Your task to perform on an android device: install app "Pluto TV - Live TV and Movies" Image 0: 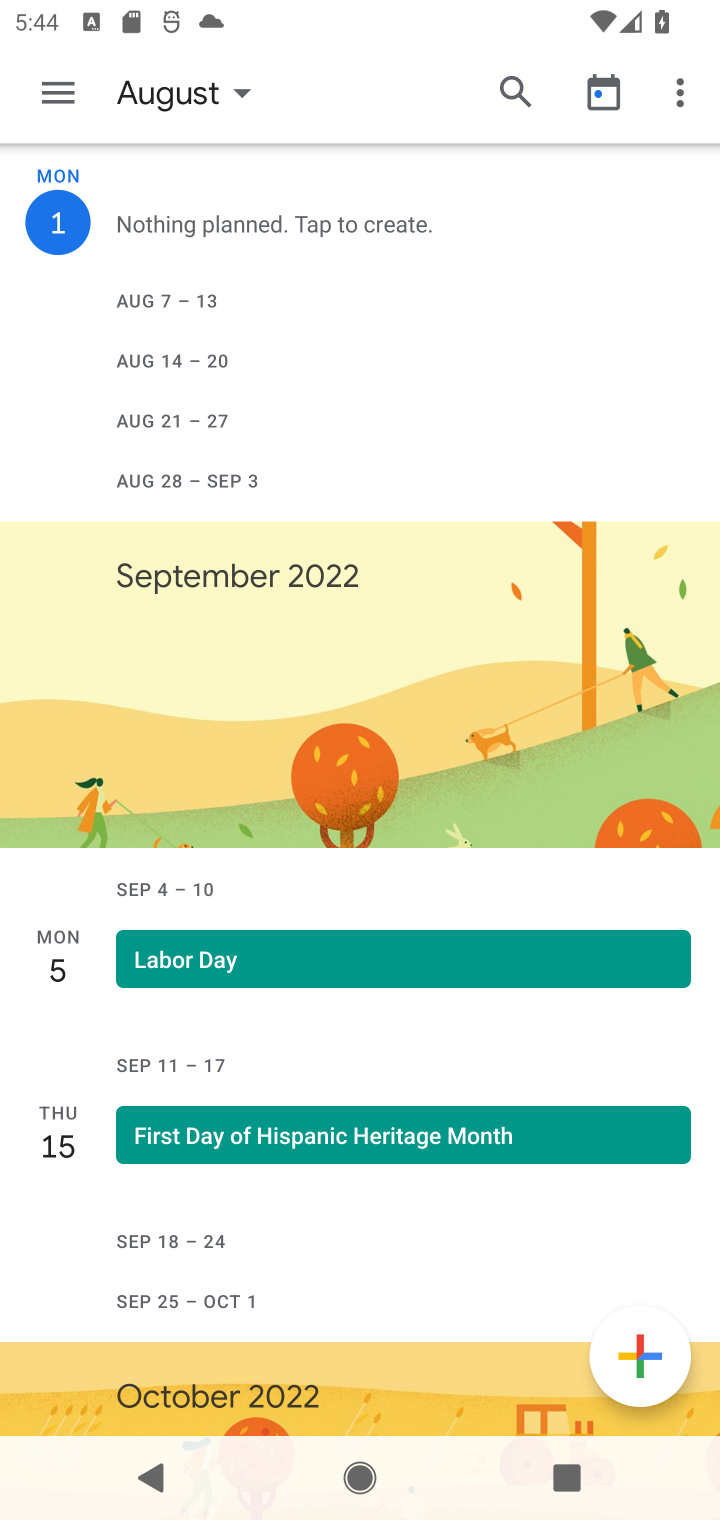
Step 0: press home button
Your task to perform on an android device: install app "Pluto TV - Live TV and Movies" Image 1: 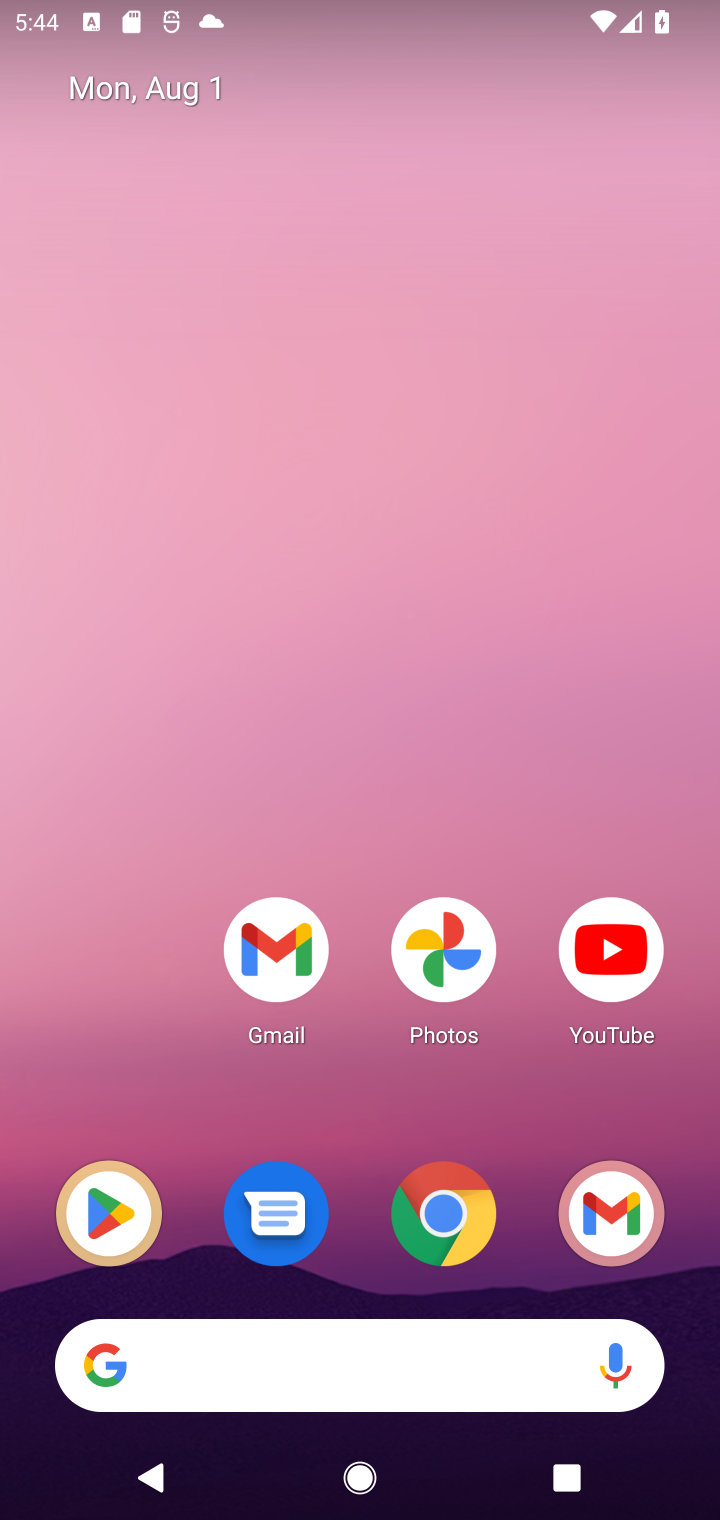
Step 1: drag from (550, 1079) to (425, 0)
Your task to perform on an android device: install app "Pluto TV - Live TV and Movies" Image 2: 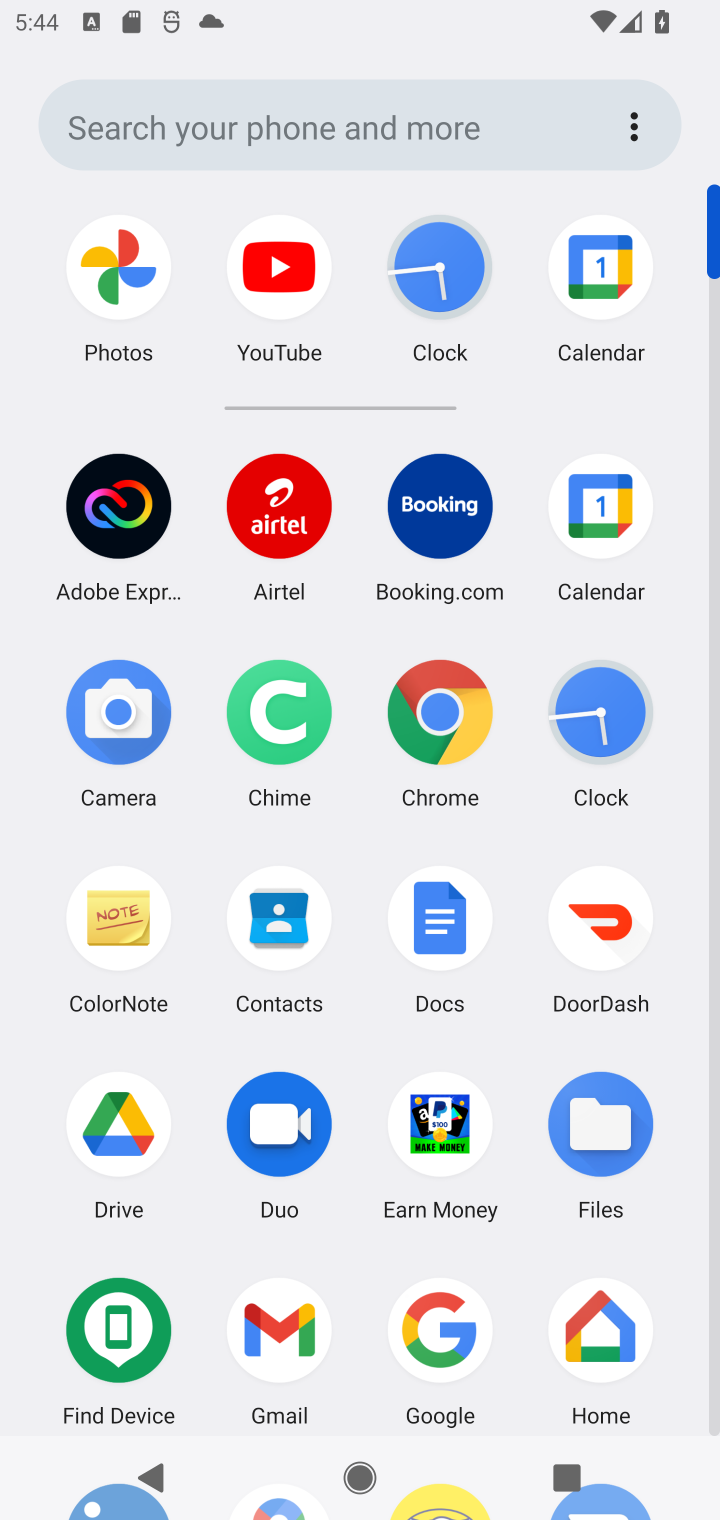
Step 2: drag from (368, 1107) to (331, 376)
Your task to perform on an android device: install app "Pluto TV - Live TV and Movies" Image 3: 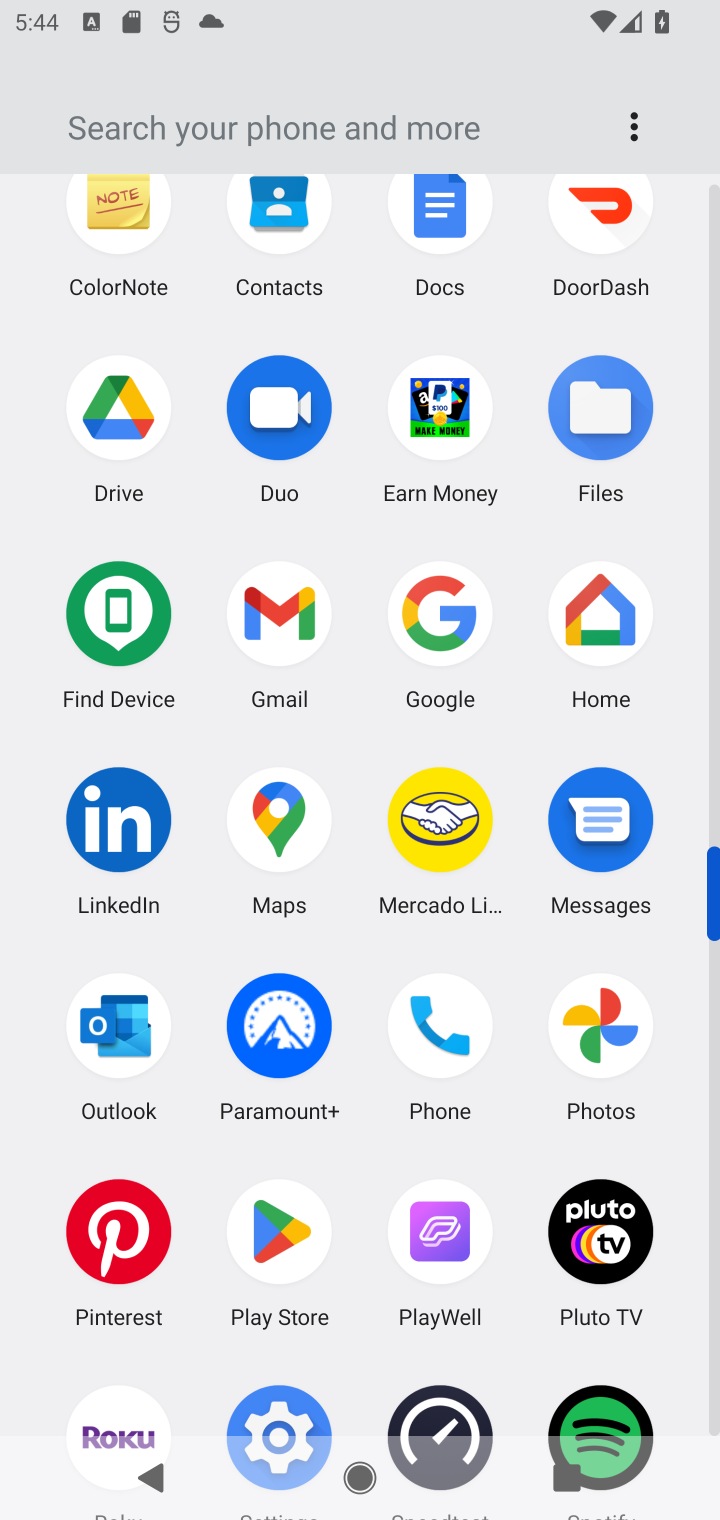
Step 3: click (281, 1225)
Your task to perform on an android device: install app "Pluto TV - Live TV and Movies" Image 4: 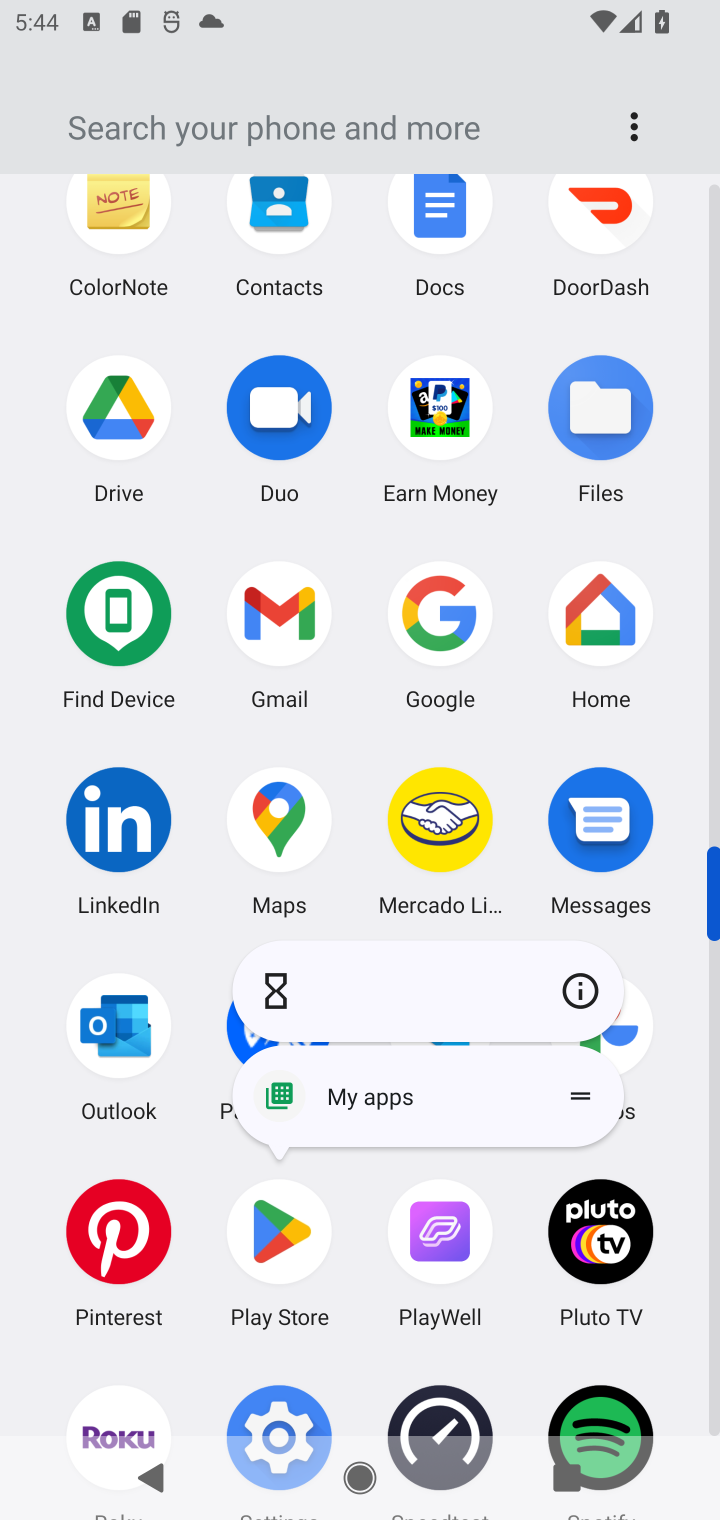
Step 4: click (264, 1251)
Your task to perform on an android device: install app "Pluto TV - Live TV and Movies" Image 5: 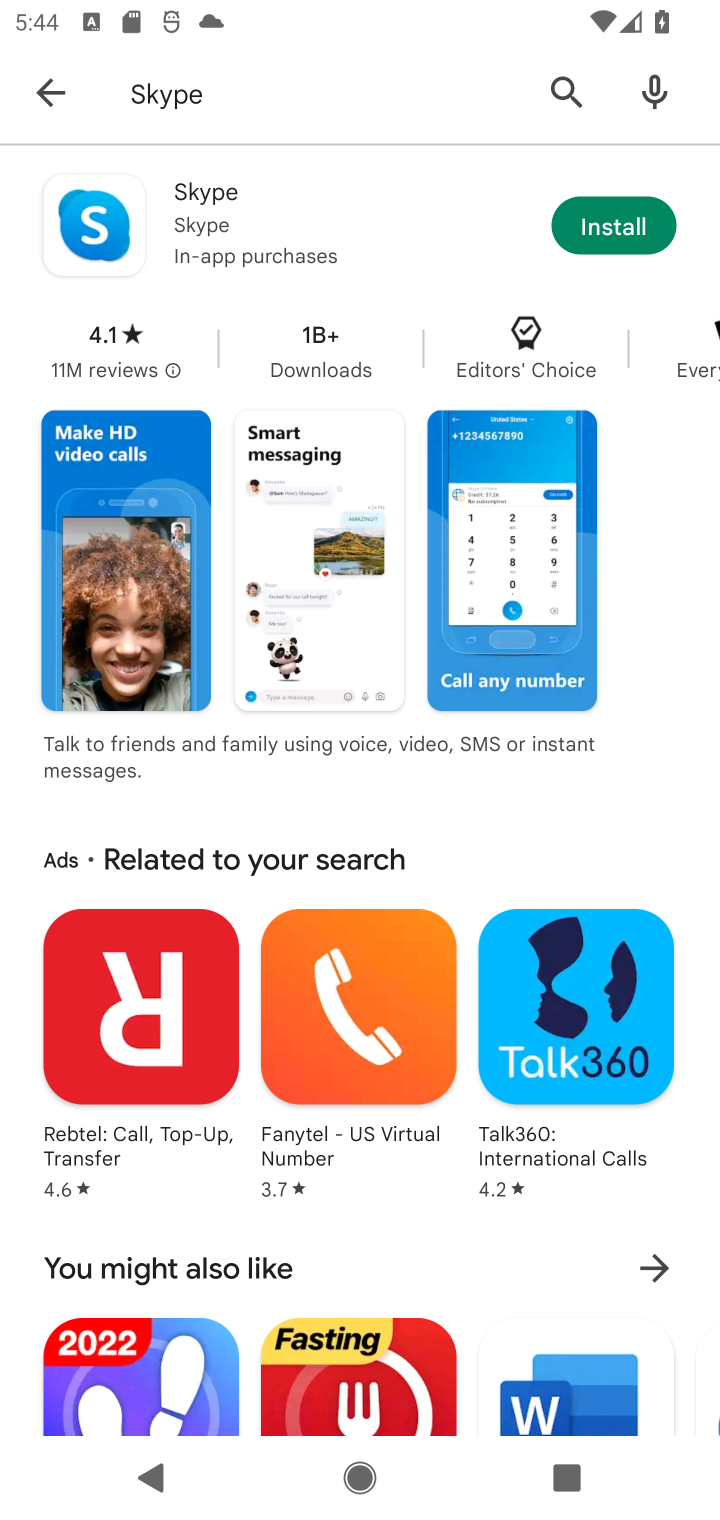
Step 5: click (378, 101)
Your task to perform on an android device: install app "Pluto TV - Live TV and Movies" Image 6: 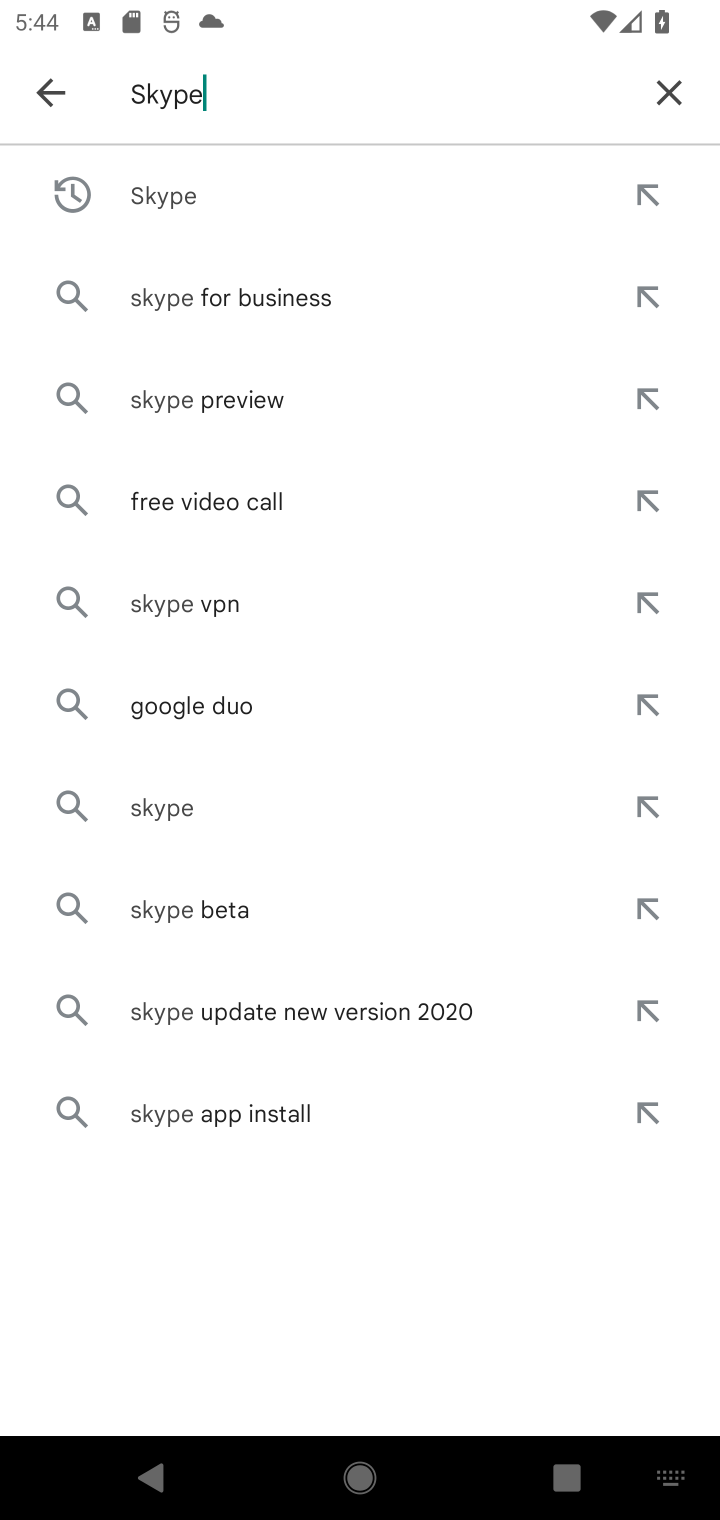
Step 6: click (660, 87)
Your task to perform on an android device: install app "Pluto TV - Live TV and Movies" Image 7: 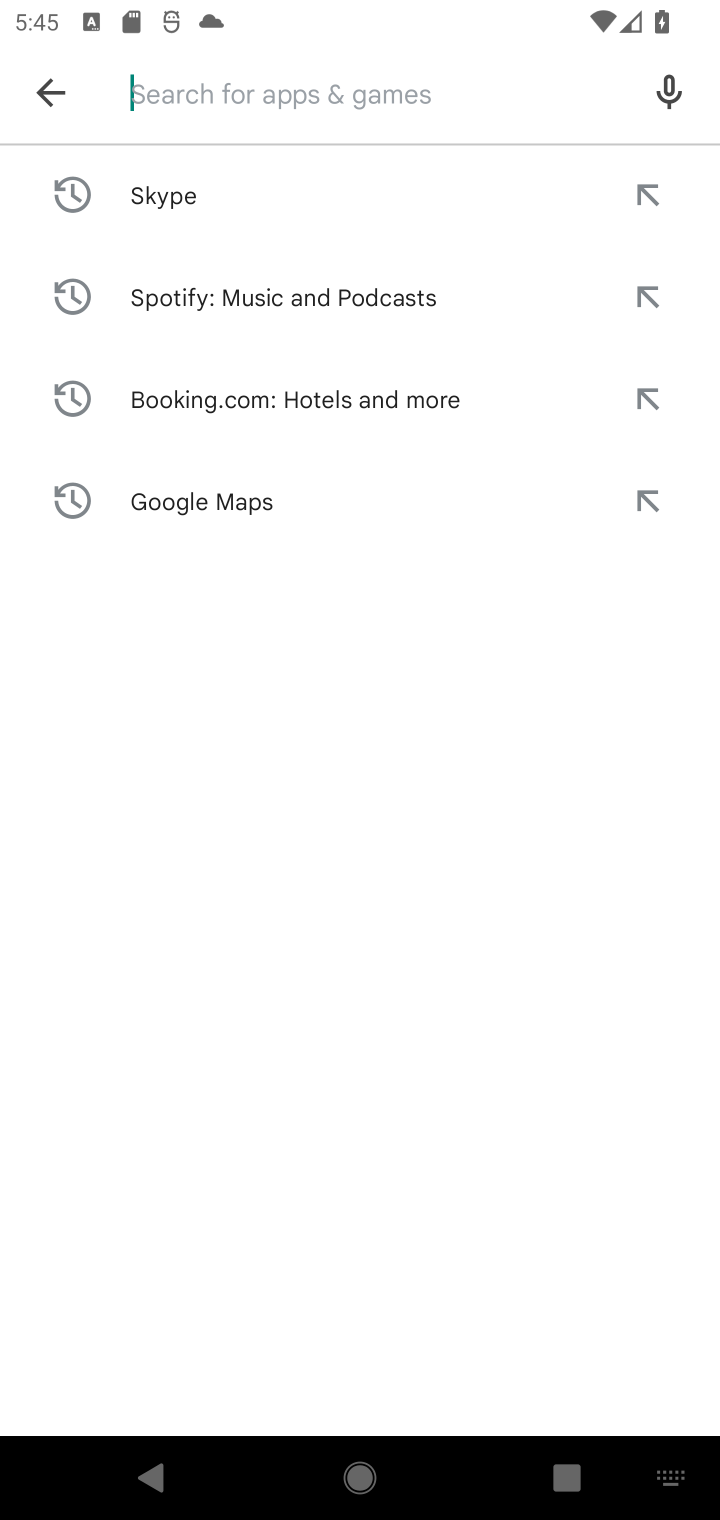
Step 7: type "Pluto TV - Live TV and Movies"
Your task to perform on an android device: install app "Pluto TV - Live TV and Movies" Image 8: 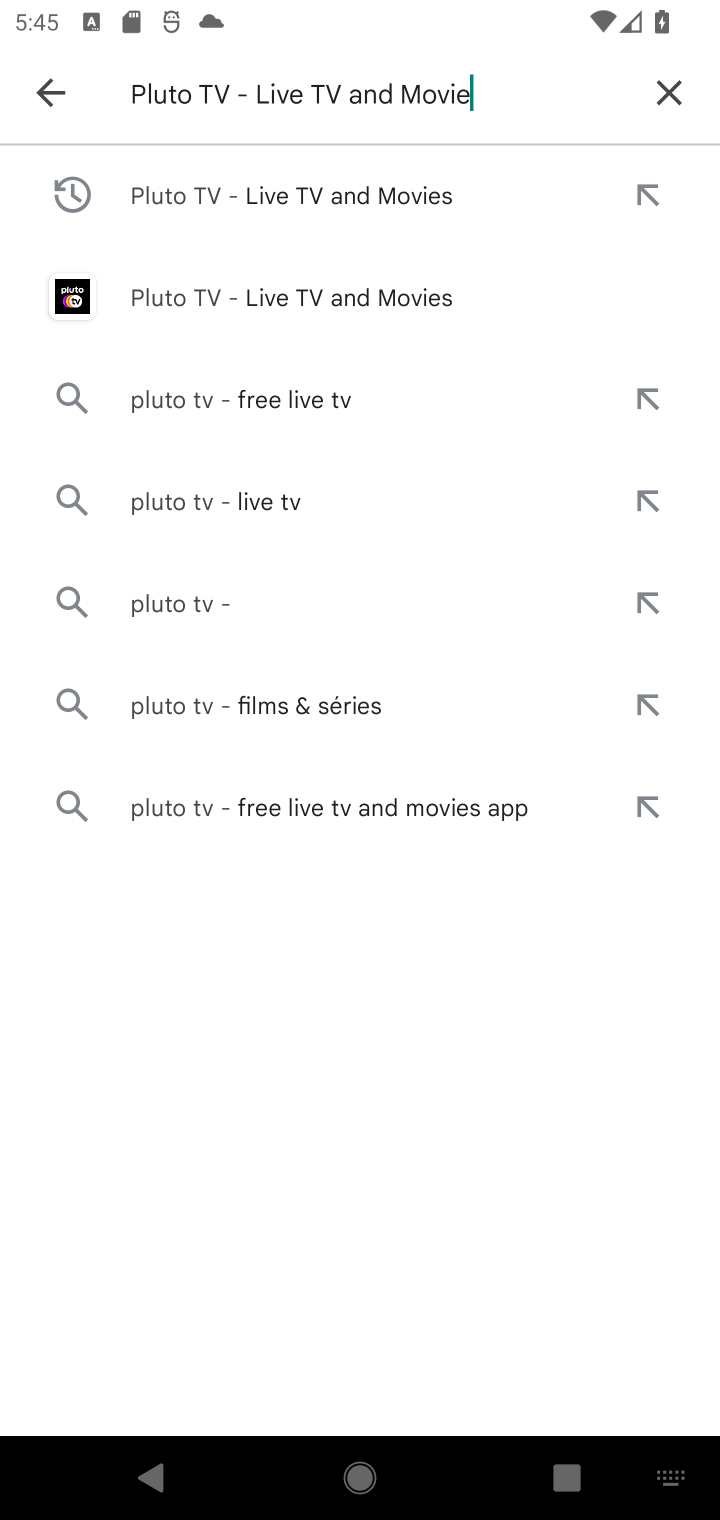
Step 8: press enter
Your task to perform on an android device: install app "Pluto TV - Live TV and Movies" Image 9: 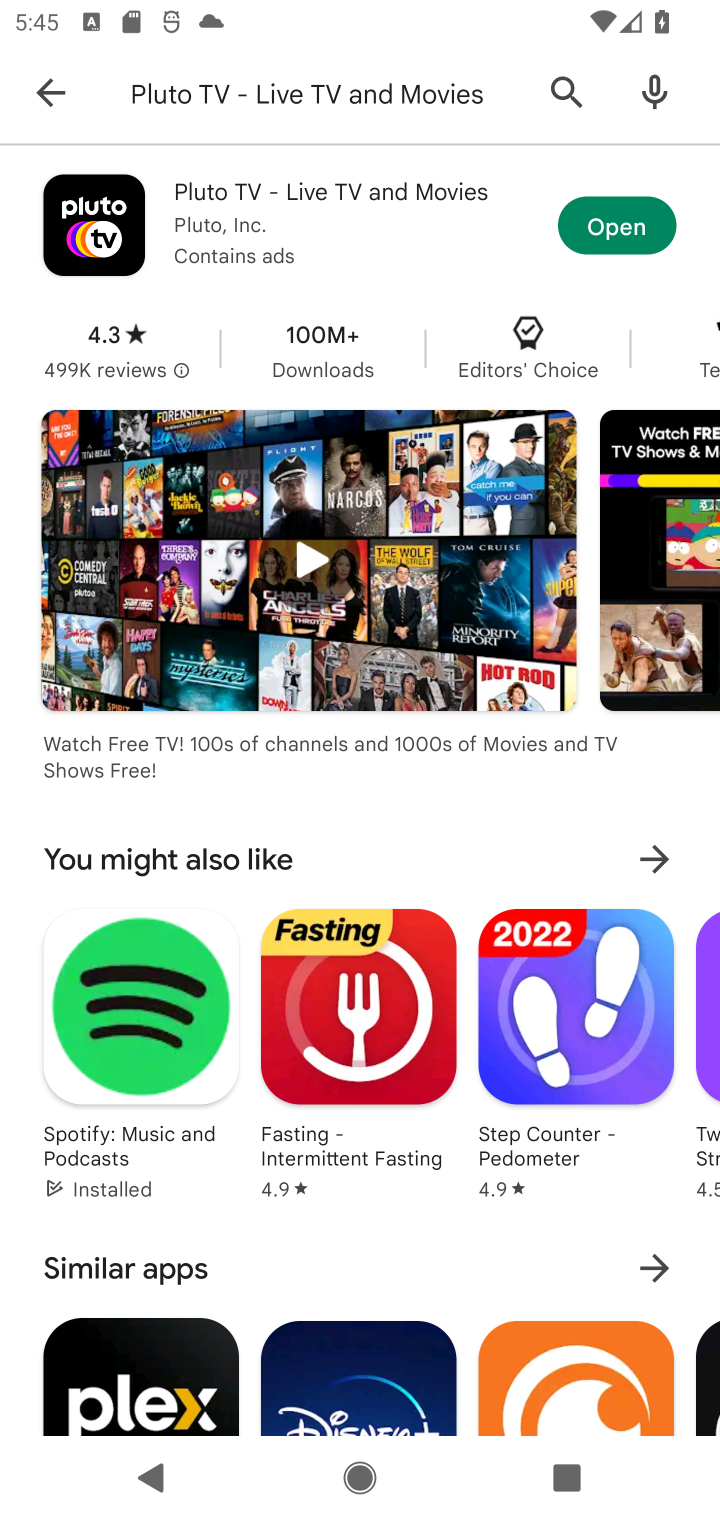
Step 9: click (445, 205)
Your task to perform on an android device: install app "Pluto TV - Live TV and Movies" Image 10: 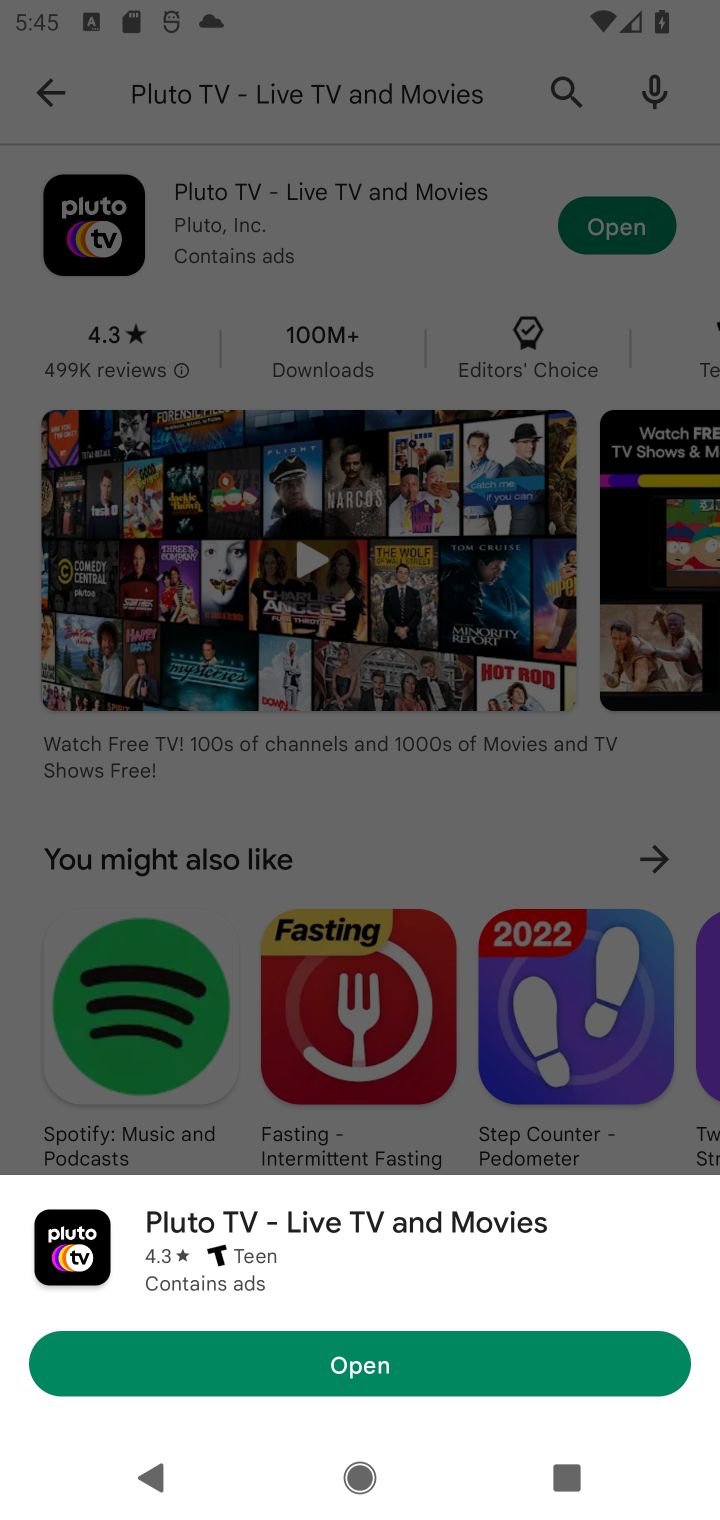
Step 10: click (349, 233)
Your task to perform on an android device: install app "Pluto TV - Live TV and Movies" Image 11: 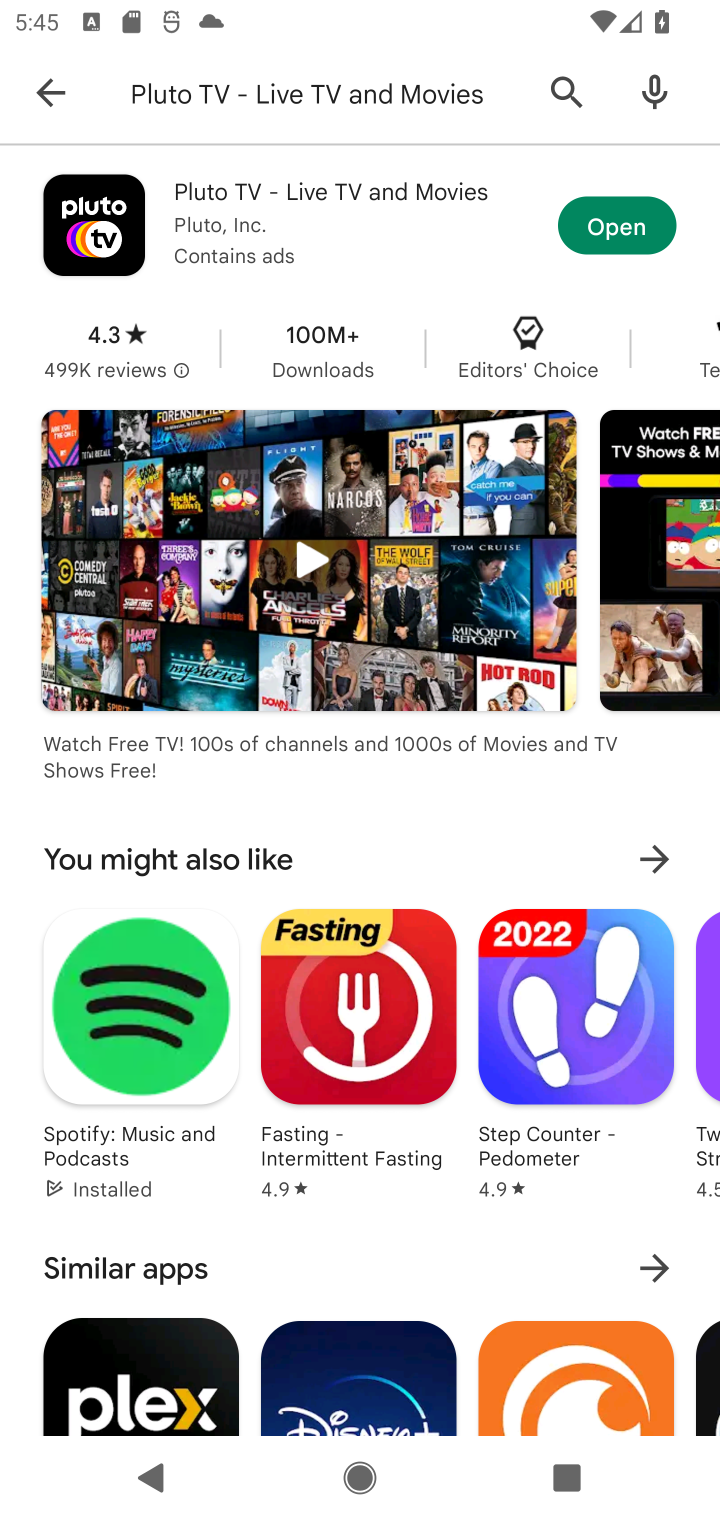
Step 11: click (230, 204)
Your task to perform on an android device: install app "Pluto TV - Live TV and Movies" Image 12: 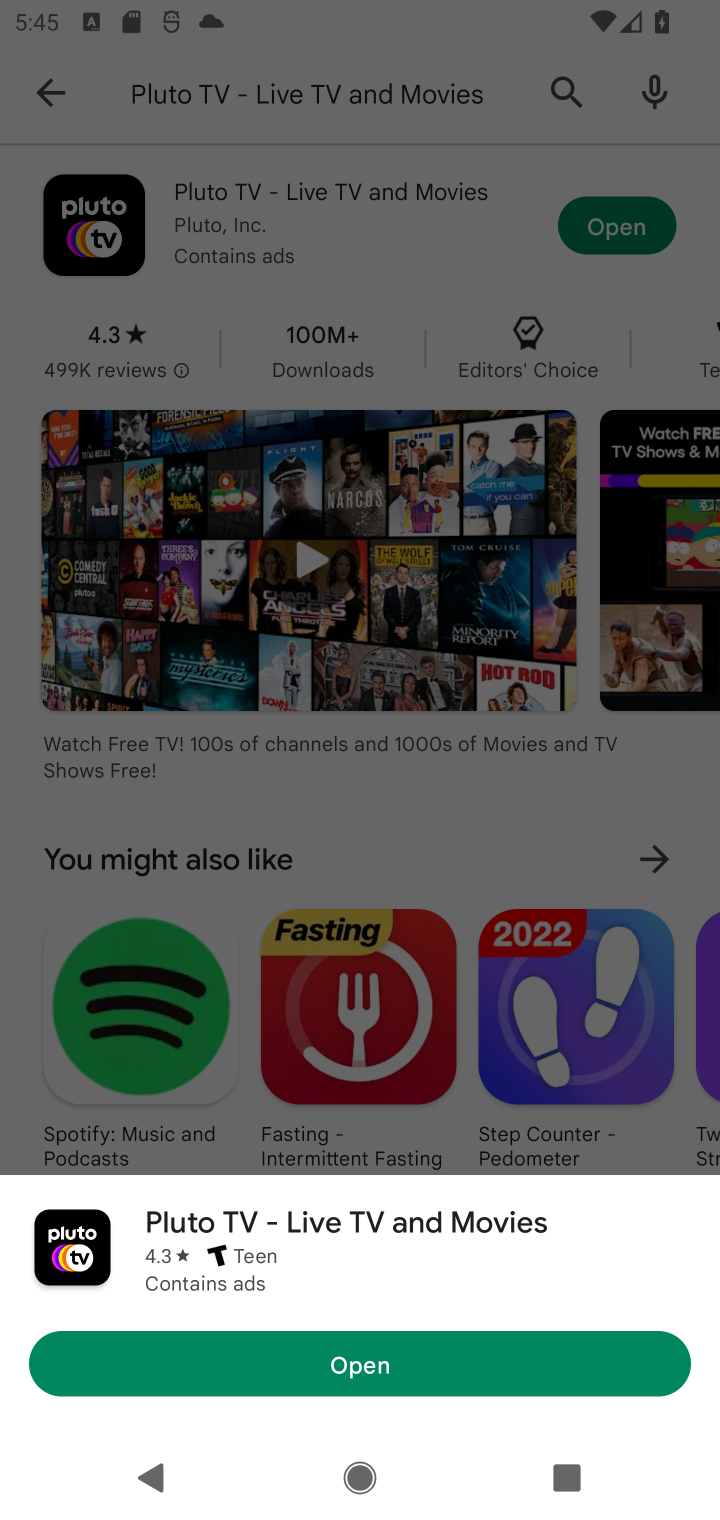
Step 12: task complete